Your task to perform on an android device: set an alarm Image 0: 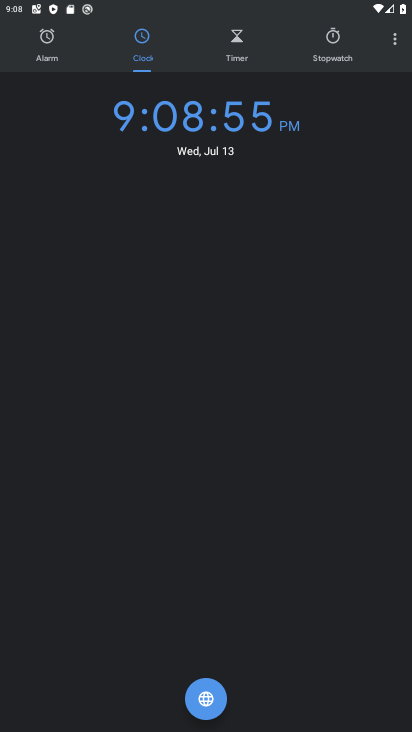
Step 0: click (40, 44)
Your task to perform on an android device: set an alarm Image 1: 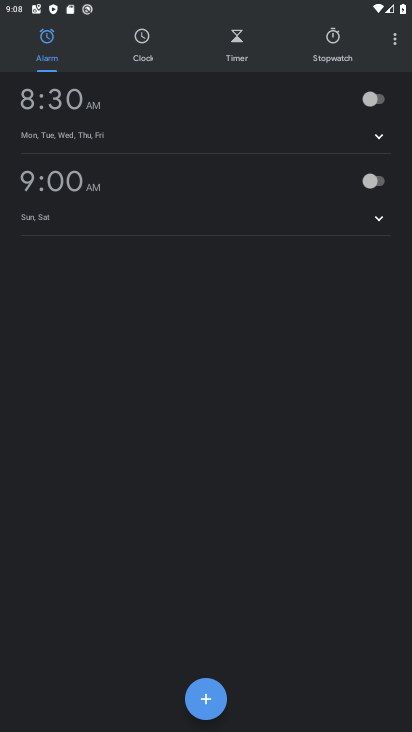
Step 1: click (203, 703)
Your task to perform on an android device: set an alarm Image 2: 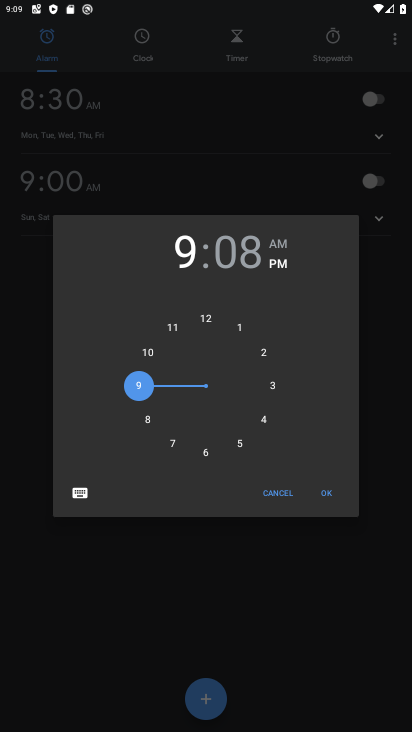
Step 2: click (205, 455)
Your task to perform on an android device: set an alarm Image 3: 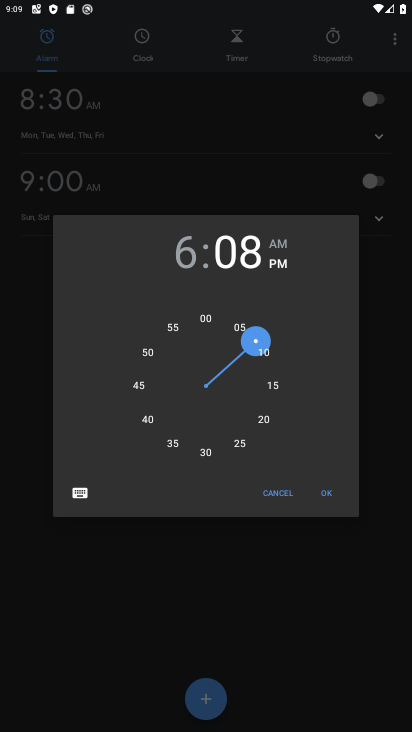
Step 3: click (323, 488)
Your task to perform on an android device: set an alarm Image 4: 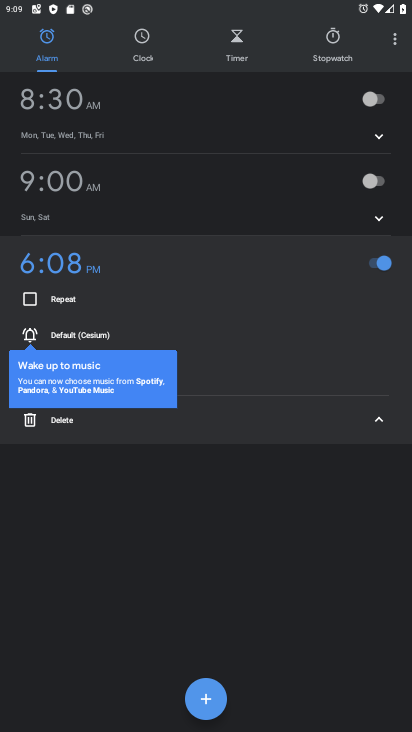
Step 4: task complete